Your task to perform on an android device: add a label to a message in the gmail app Image 0: 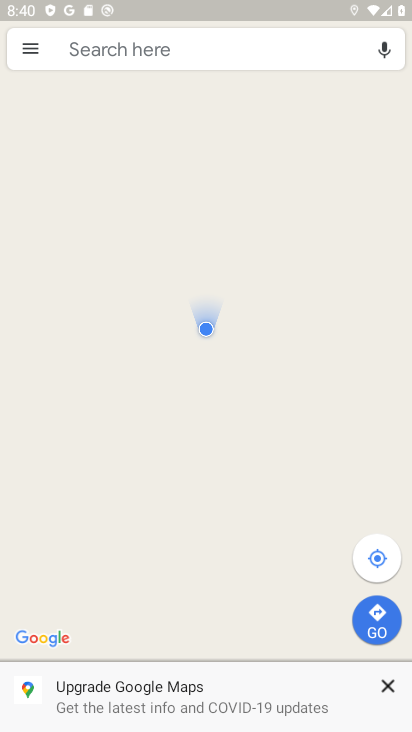
Step 0: press home button
Your task to perform on an android device: add a label to a message in the gmail app Image 1: 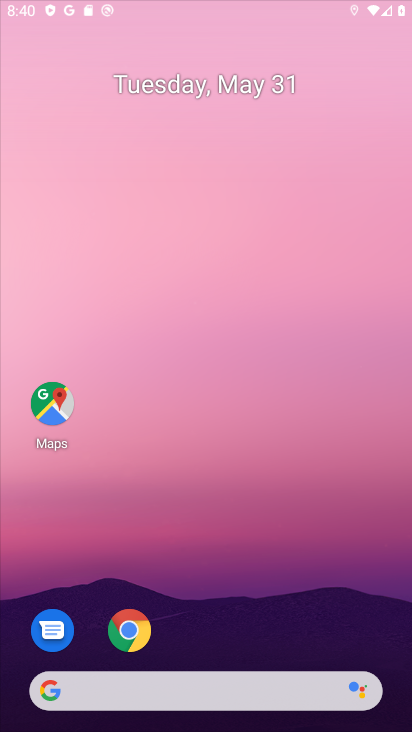
Step 1: drag from (183, 728) to (129, 71)
Your task to perform on an android device: add a label to a message in the gmail app Image 2: 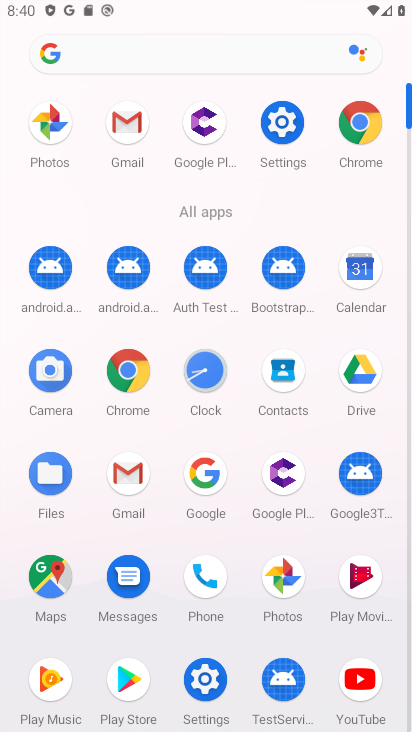
Step 2: click (140, 480)
Your task to perform on an android device: add a label to a message in the gmail app Image 3: 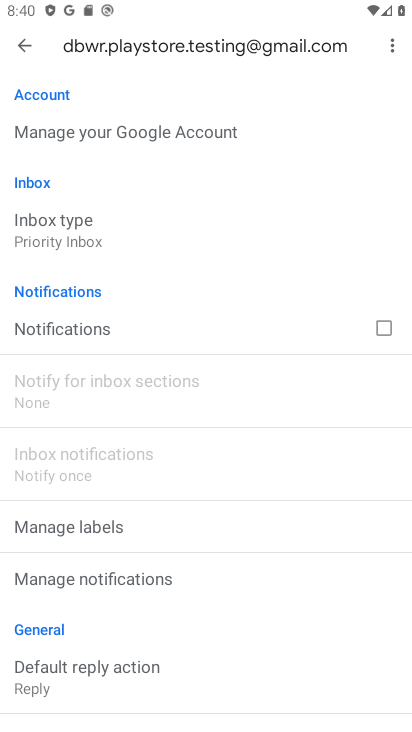
Step 3: click (21, 41)
Your task to perform on an android device: add a label to a message in the gmail app Image 4: 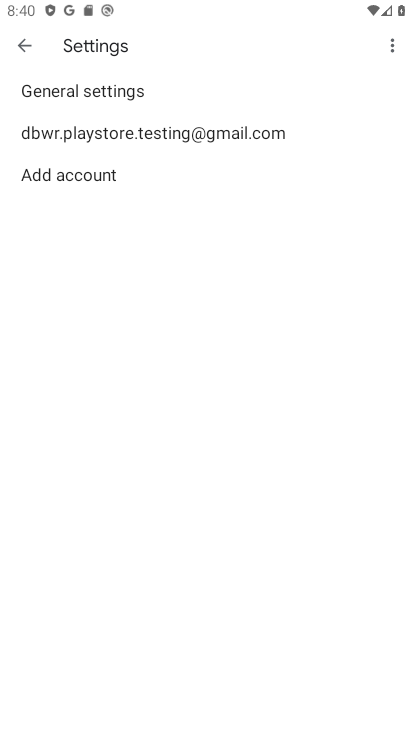
Step 4: click (23, 52)
Your task to perform on an android device: add a label to a message in the gmail app Image 5: 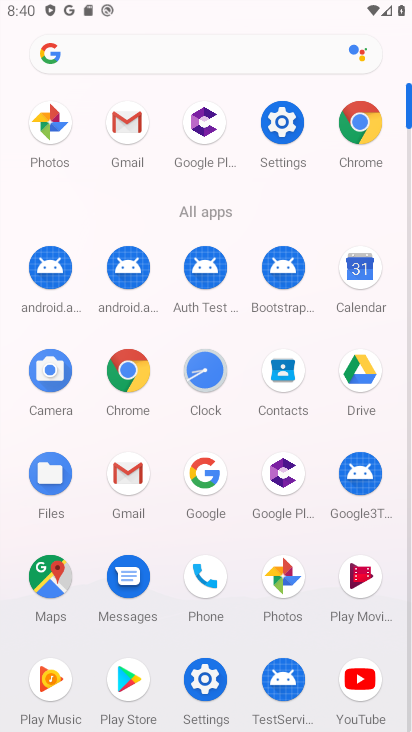
Step 5: click (142, 112)
Your task to perform on an android device: add a label to a message in the gmail app Image 6: 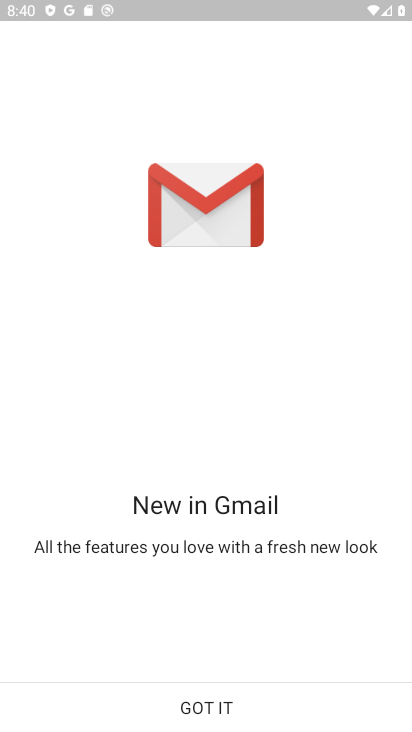
Step 6: click (184, 707)
Your task to perform on an android device: add a label to a message in the gmail app Image 7: 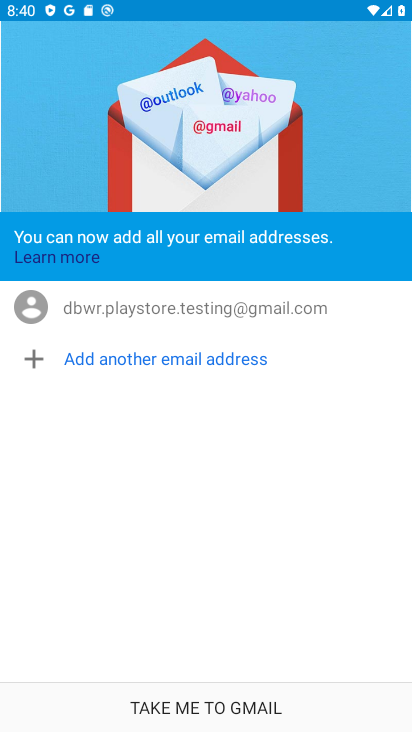
Step 7: click (186, 703)
Your task to perform on an android device: add a label to a message in the gmail app Image 8: 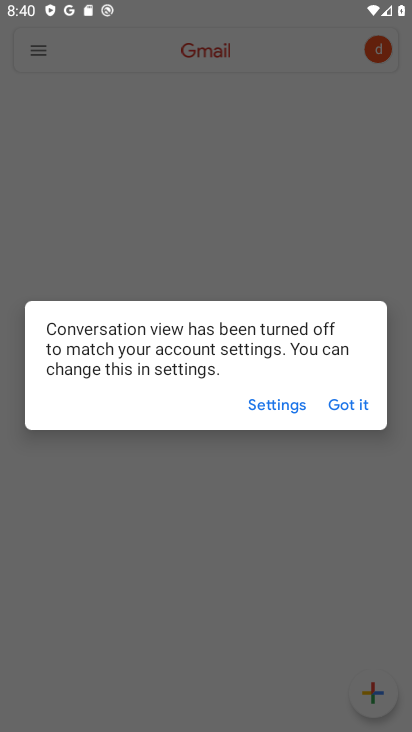
Step 8: click (342, 395)
Your task to perform on an android device: add a label to a message in the gmail app Image 9: 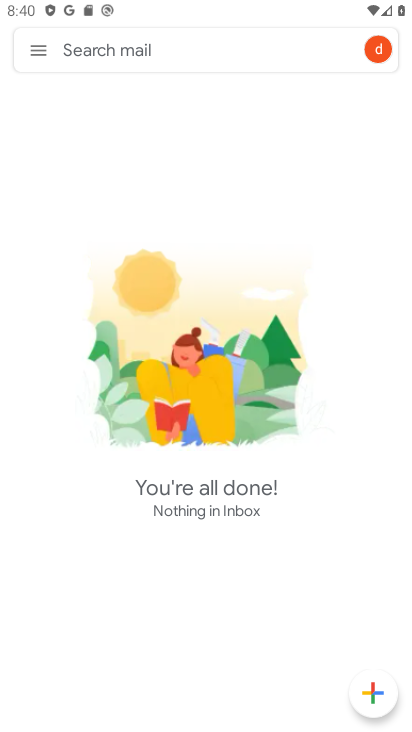
Step 9: click (44, 54)
Your task to perform on an android device: add a label to a message in the gmail app Image 10: 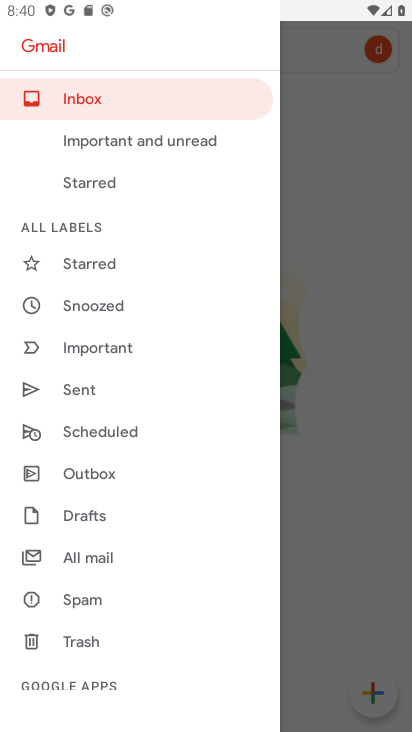
Step 10: click (81, 568)
Your task to perform on an android device: add a label to a message in the gmail app Image 11: 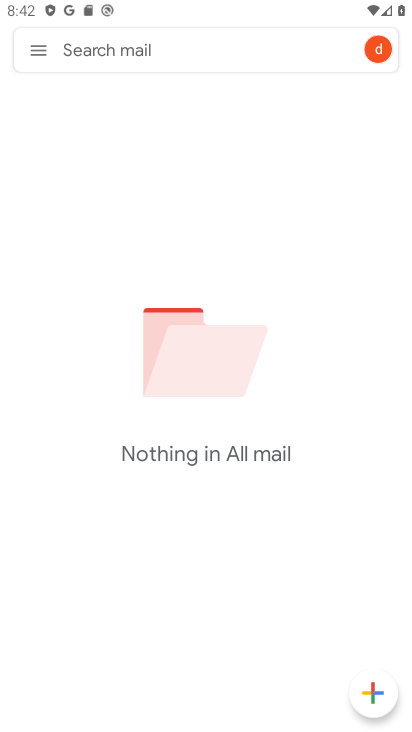
Step 11: task complete